Your task to perform on an android device: Open display settings Image 0: 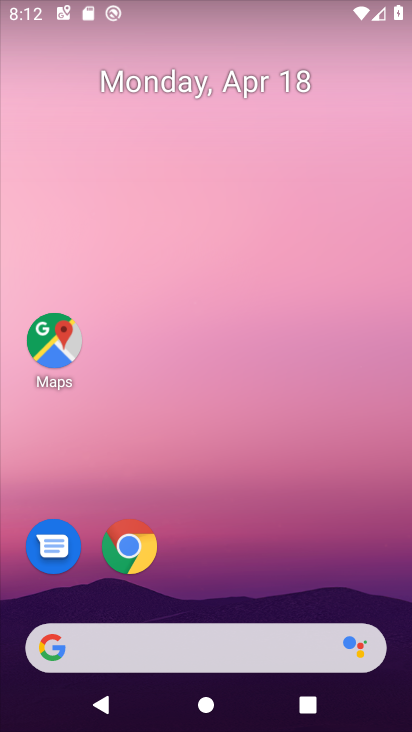
Step 0: drag from (365, 573) to (326, 86)
Your task to perform on an android device: Open display settings Image 1: 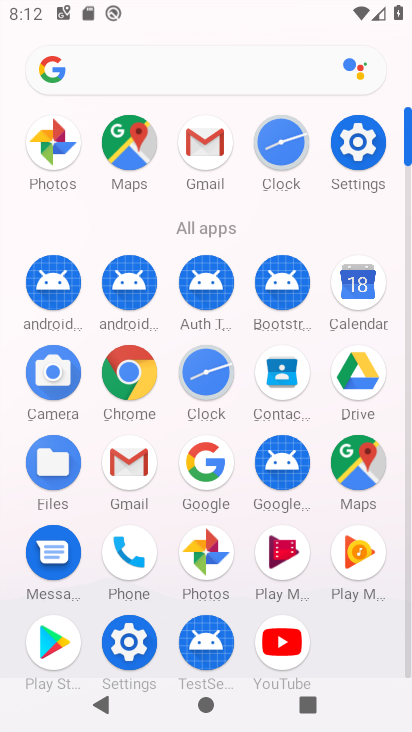
Step 1: click (371, 137)
Your task to perform on an android device: Open display settings Image 2: 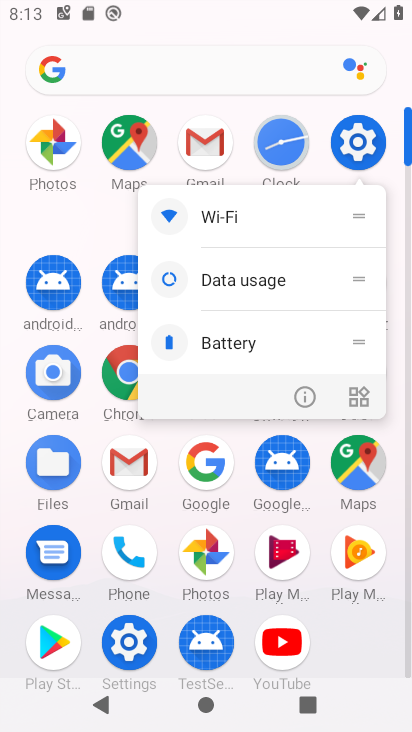
Step 2: click (356, 159)
Your task to perform on an android device: Open display settings Image 3: 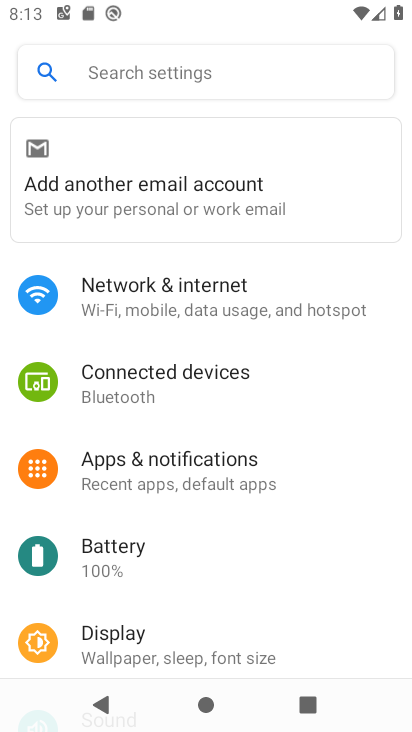
Step 3: click (267, 658)
Your task to perform on an android device: Open display settings Image 4: 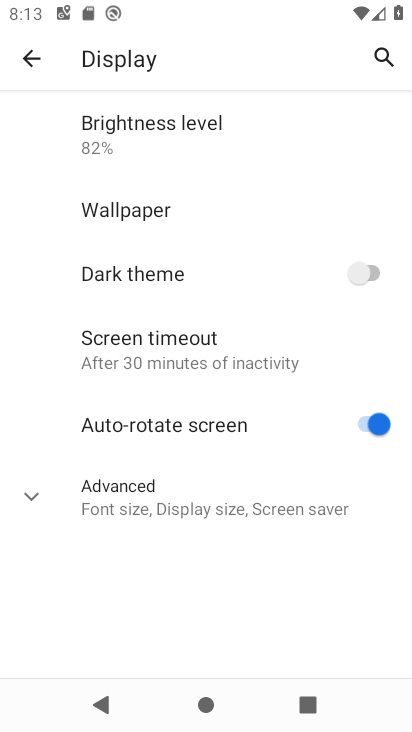
Step 4: task complete